Your task to perform on an android device: open a bookmark in the chrome app Image 0: 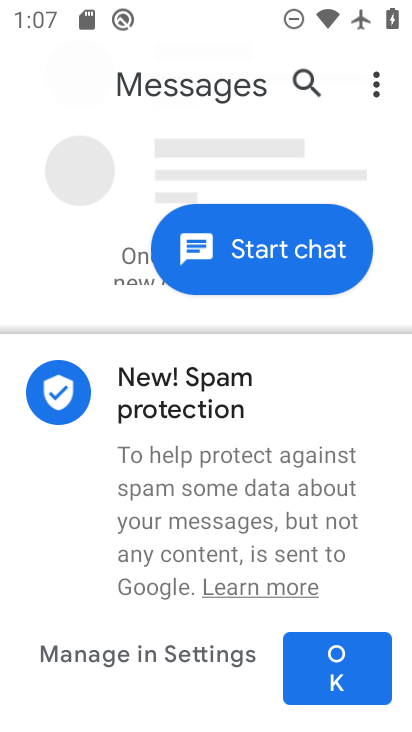
Step 0: press home button
Your task to perform on an android device: open a bookmark in the chrome app Image 1: 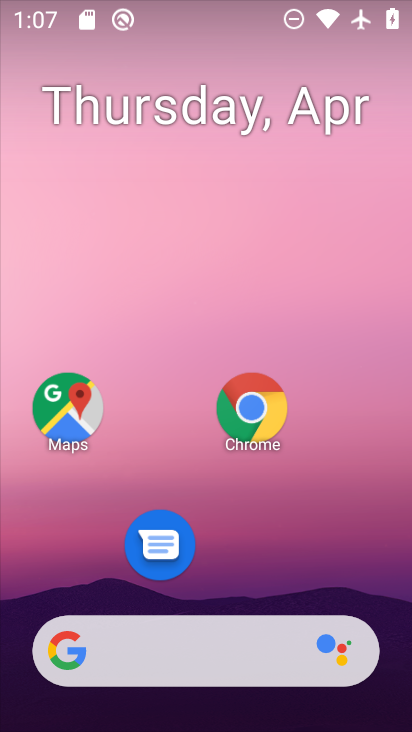
Step 1: click (253, 414)
Your task to perform on an android device: open a bookmark in the chrome app Image 2: 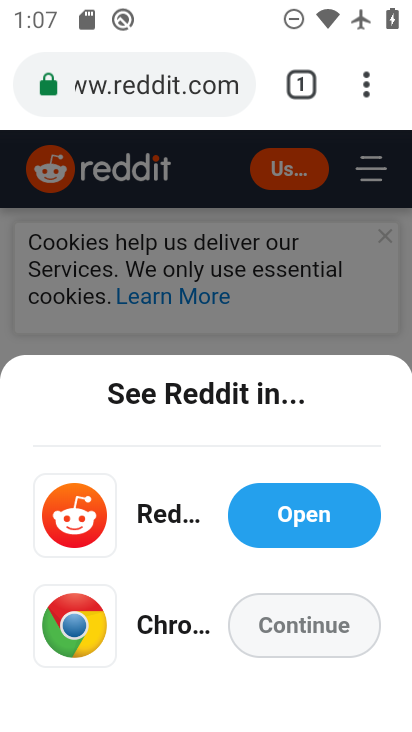
Step 2: task complete